Your task to perform on an android device: Search for "acer nitro" on target.com, select the first entry, add it to the cart, then select checkout. Image 0: 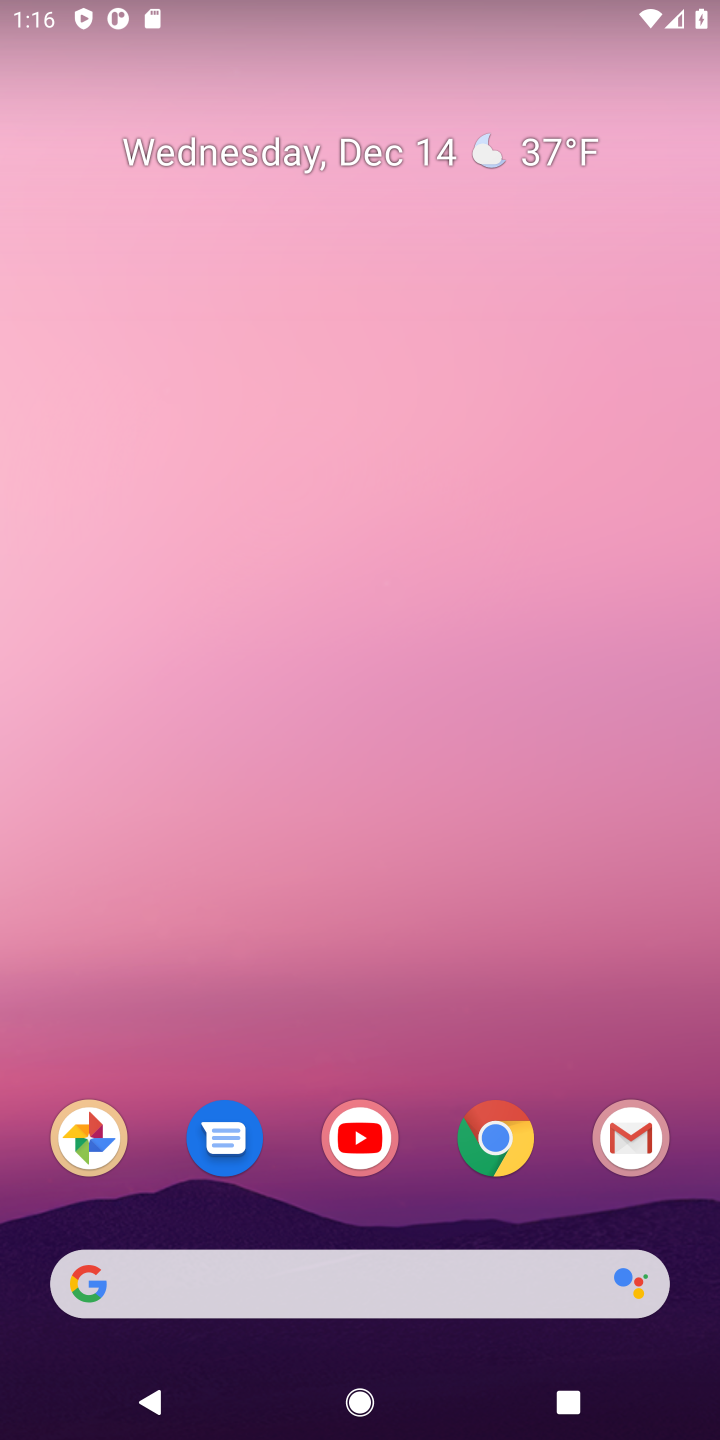
Step 0: click (488, 1133)
Your task to perform on an android device: Search for "acer nitro" on target.com, select the first entry, add it to the cart, then select checkout. Image 1: 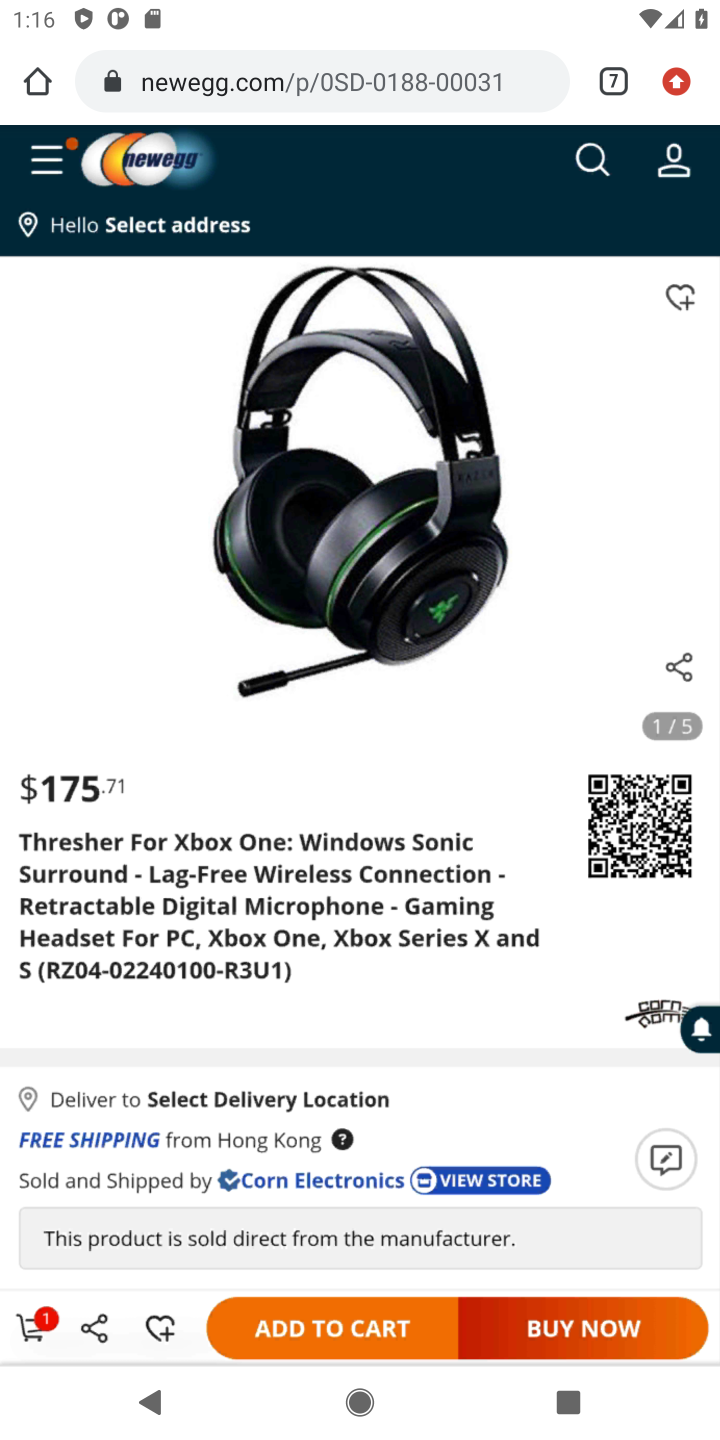
Step 1: click (617, 70)
Your task to perform on an android device: Search for "acer nitro" on target.com, select the first entry, add it to the cart, then select checkout. Image 2: 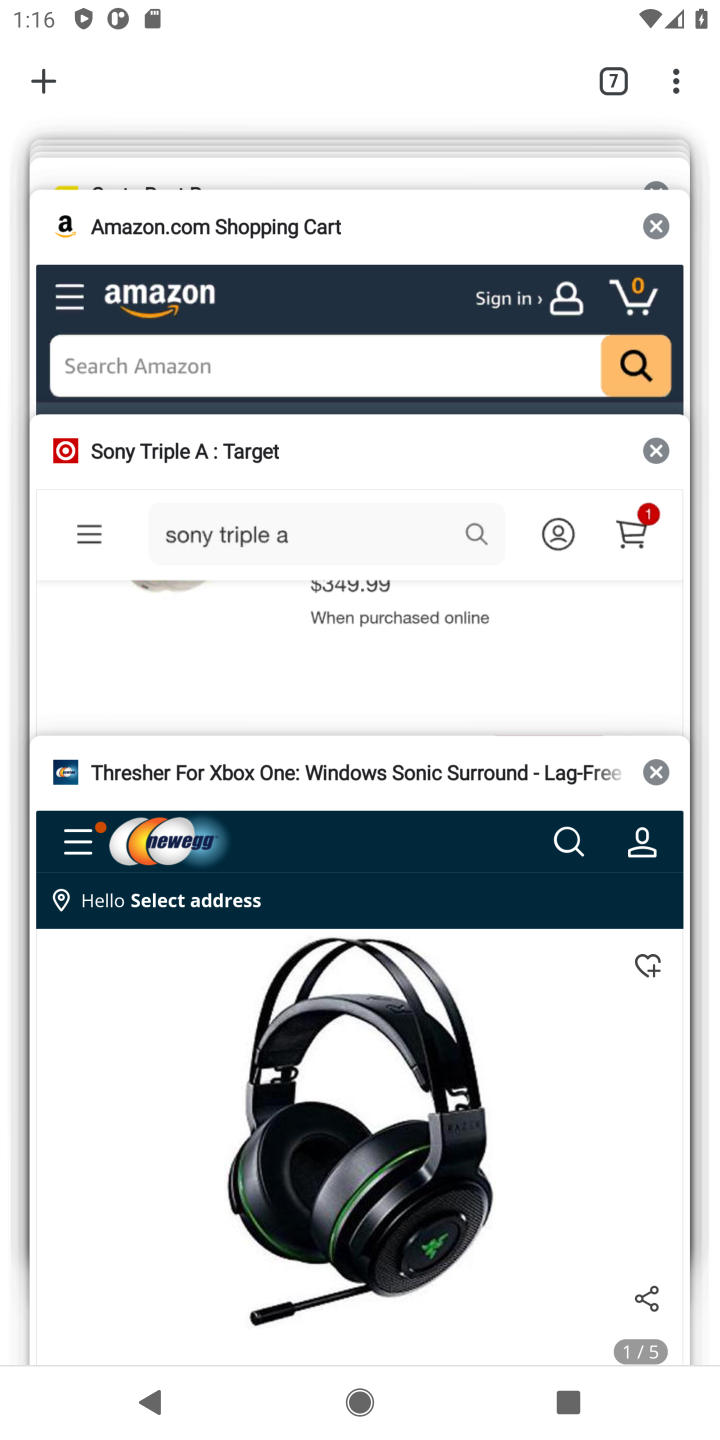
Step 2: drag from (345, 194) to (279, 711)
Your task to perform on an android device: Search for "acer nitro" on target.com, select the first entry, add it to the cart, then select checkout. Image 3: 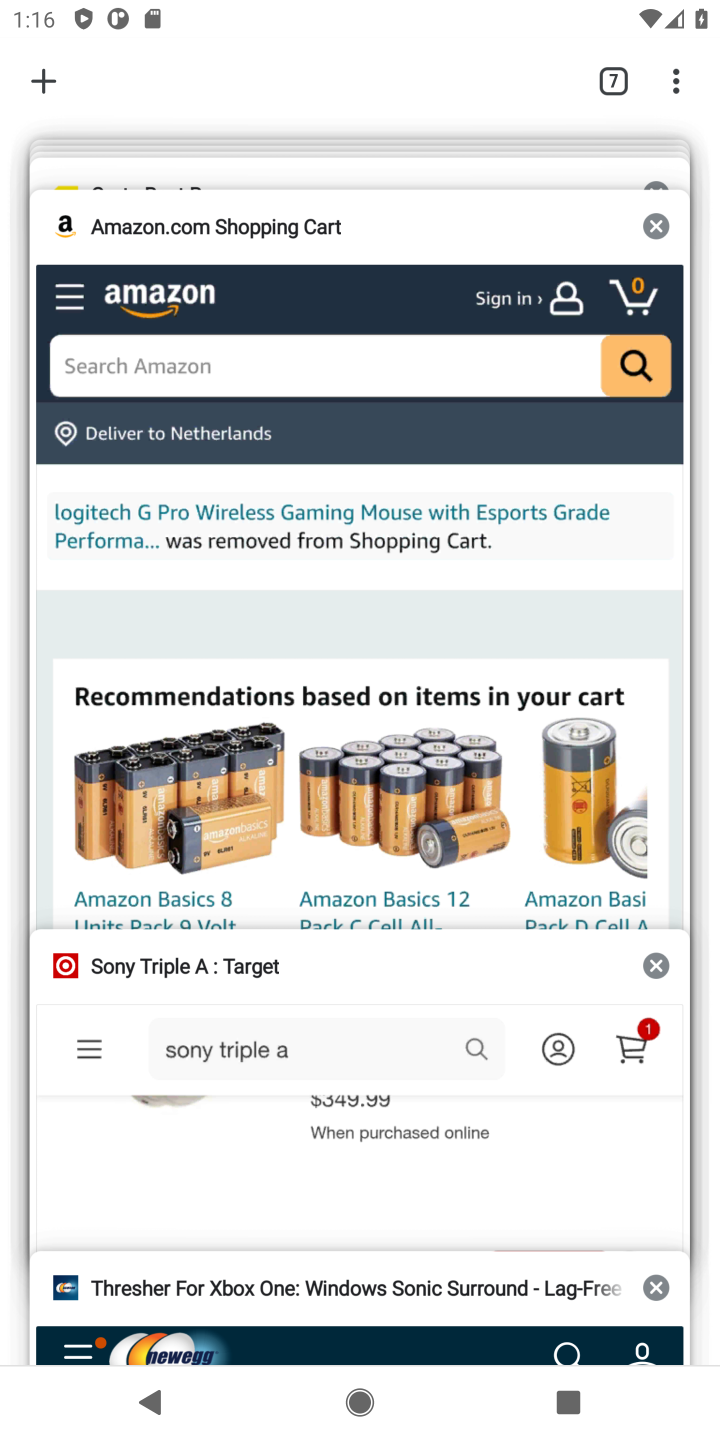
Step 3: click (279, 1011)
Your task to perform on an android device: Search for "acer nitro" on target.com, select the first entry, add it to the cart, then select checkout. Image 4: 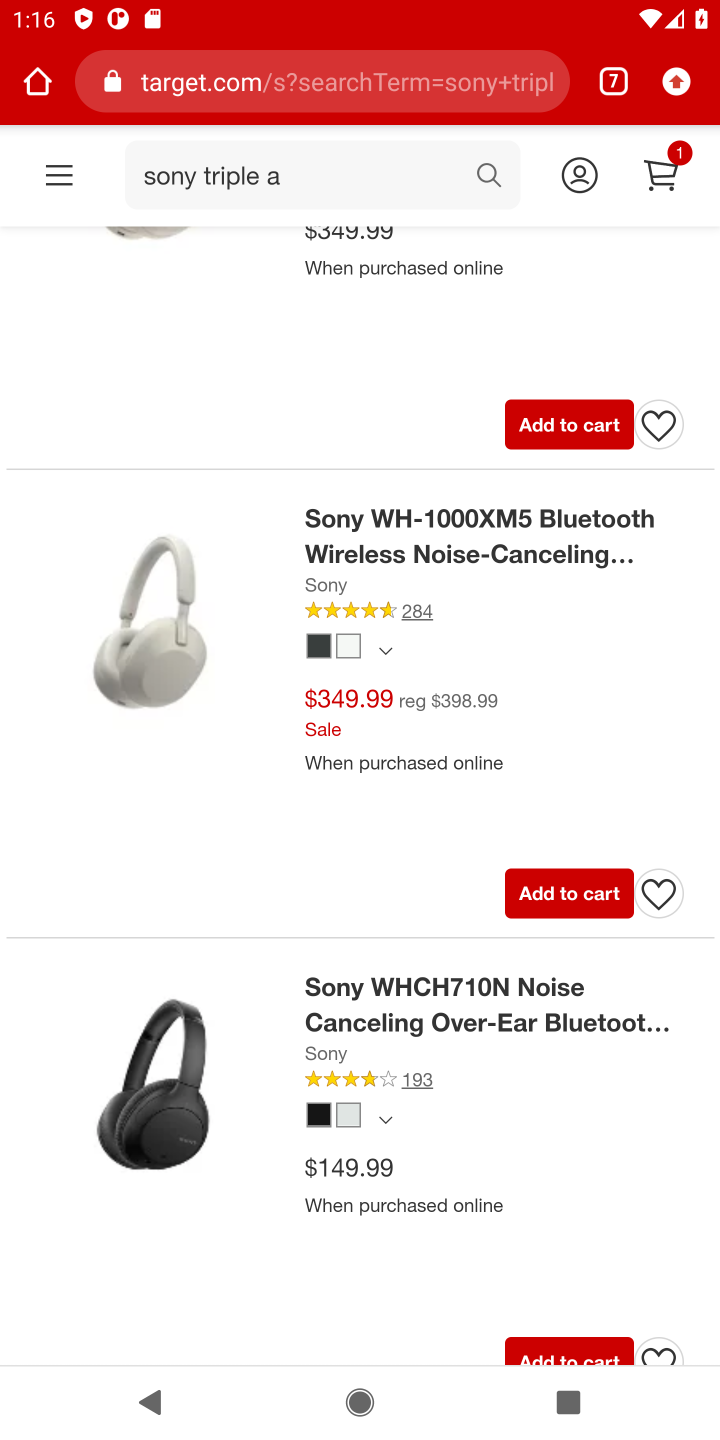
Step 4: click (351, 182)
Your task to perform on an android device: Search for "acer nitro" on target.com, select the first entry, add it to the cart, then select checkout. Image 5: 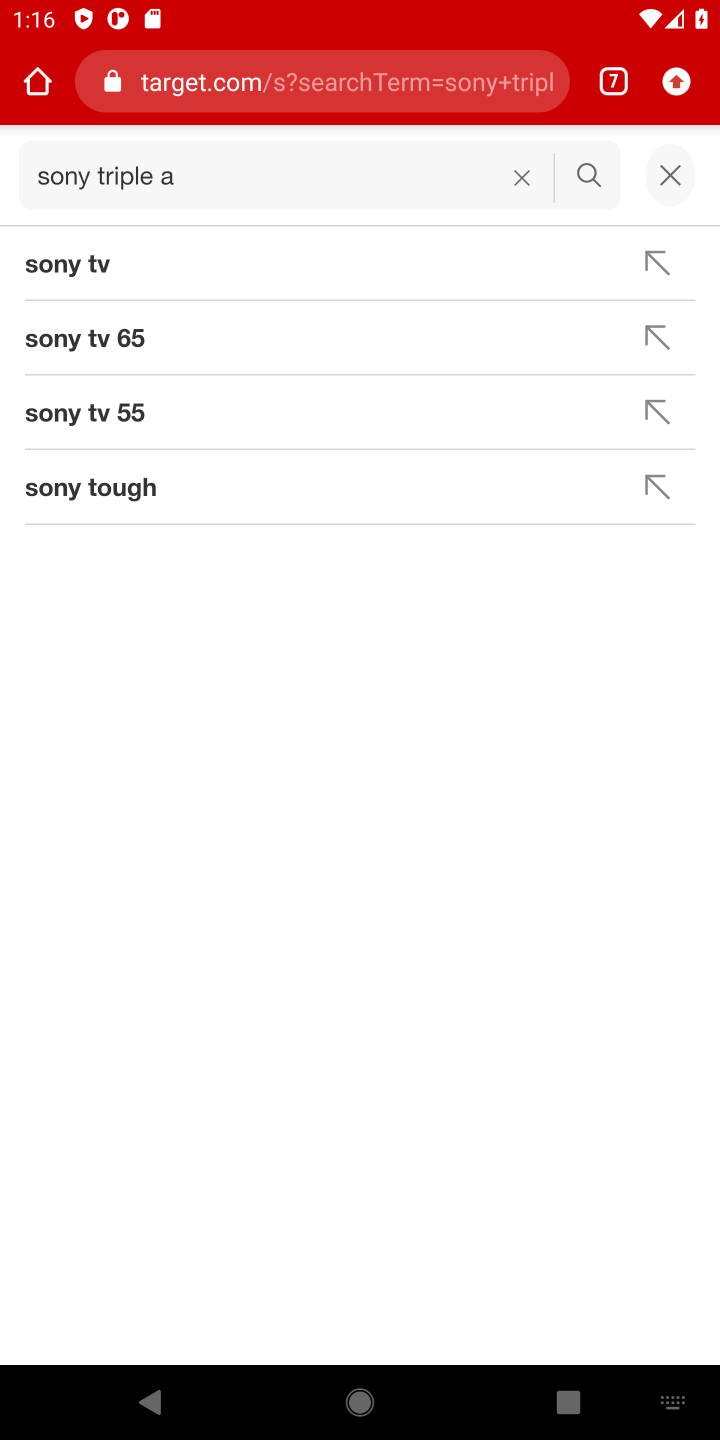
Step 5: click (520, 179)
Your task to perform on an android device: Search for "acer nitro" on target.com, select the first entry, add it to the cart, then select checkout. Image 6: 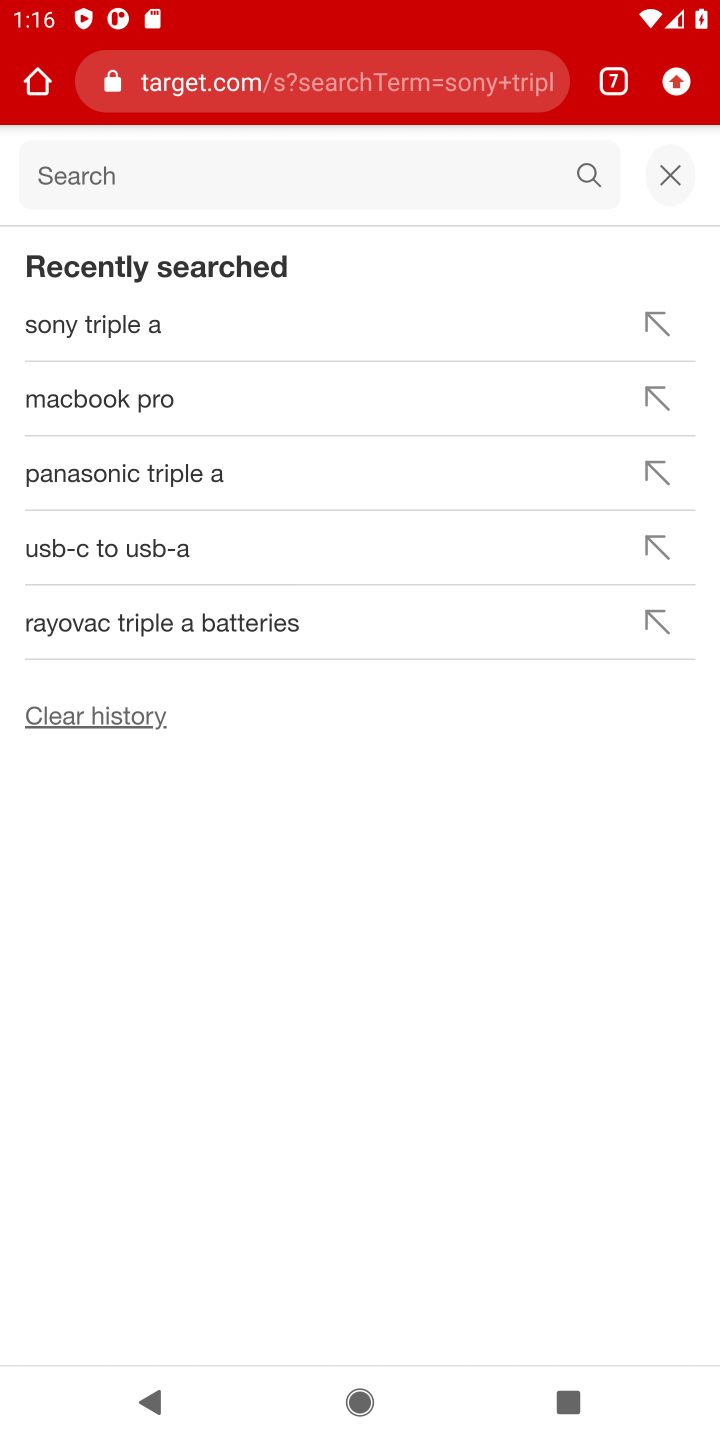
Step 6: type "acer nitro"
Your task to perform on an android device: Search for "acer nitro" on target.com, select the first entry, add it to the cart, then select checkout. Image 7: 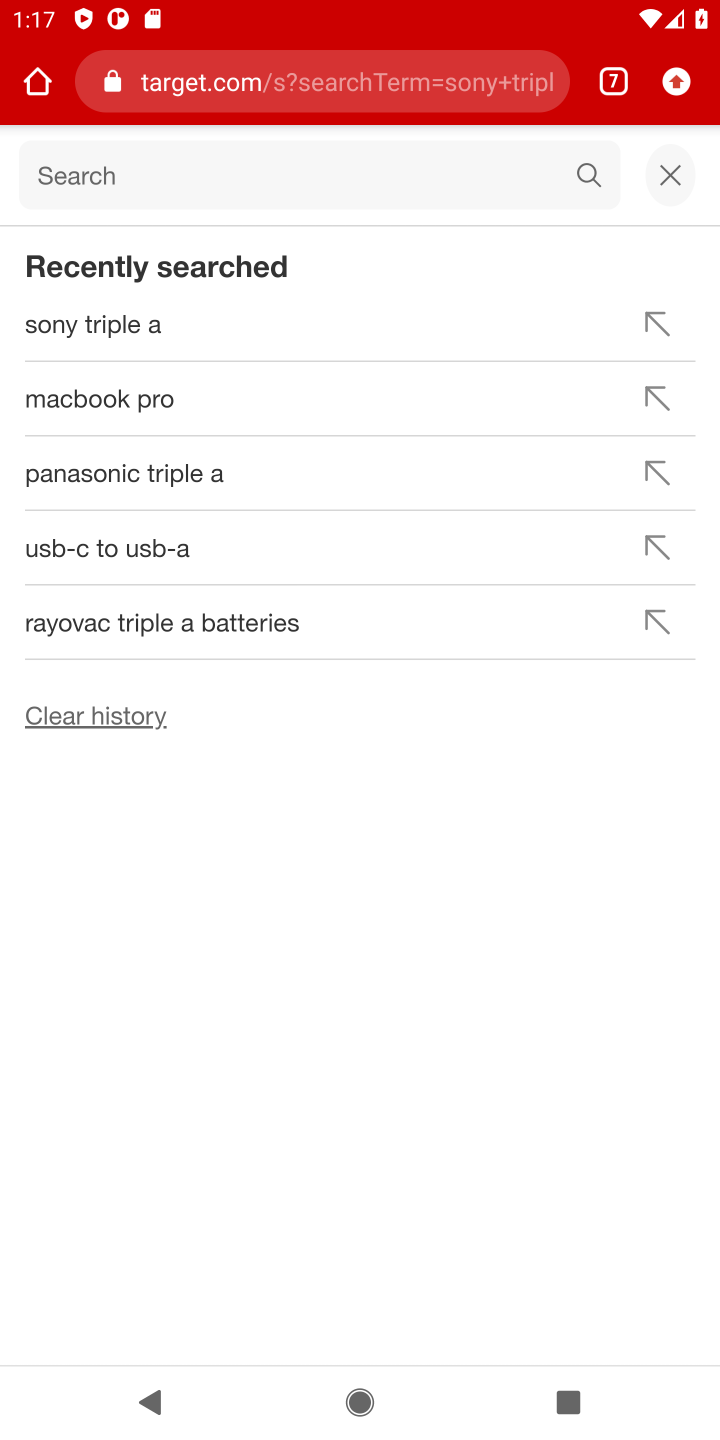
Step 7: type "acer nitro"
Your task to perform on an android device: Search for "acer nitro" on target.com, select the first entry, add it to the cart, then select checkout. Image 8: 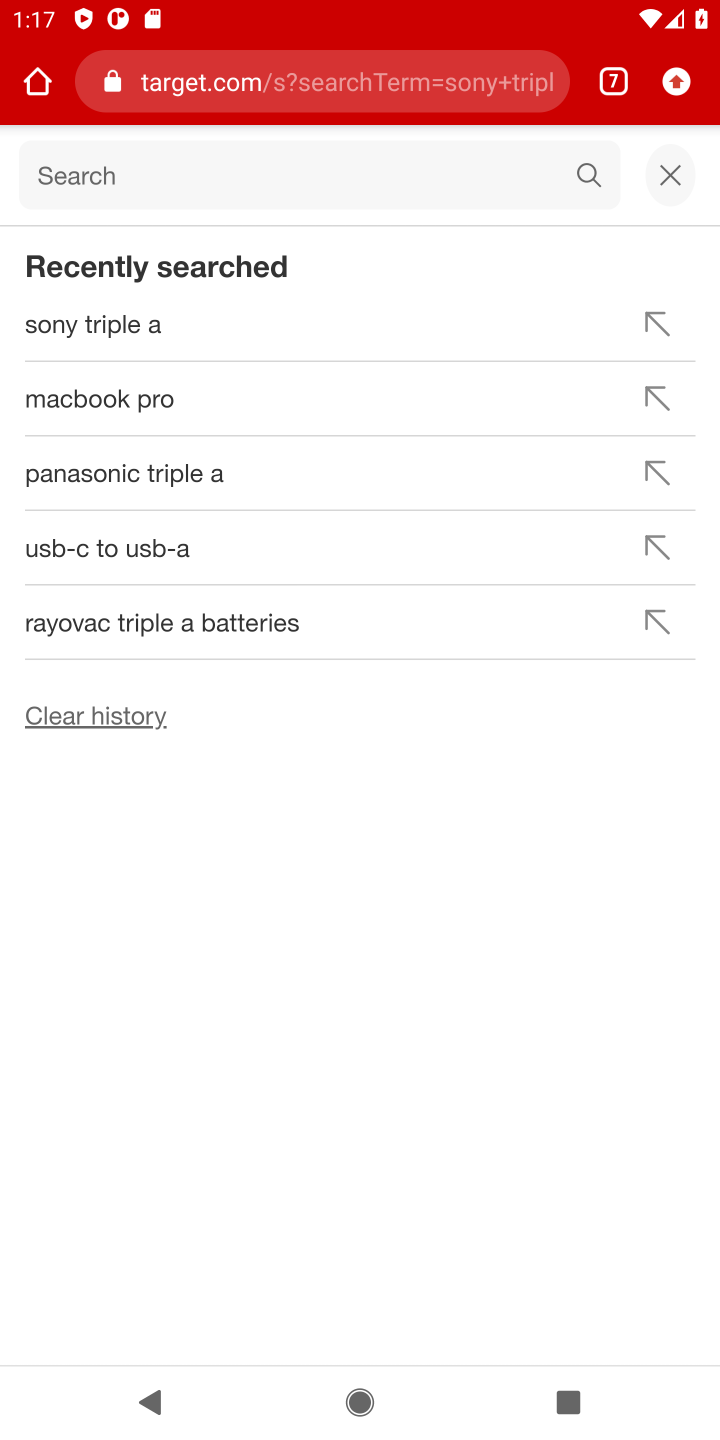
Step 8: click (87, 171)
Your task to perform on an android device: Search for "acer nitro" on target.com, select the first entry, add it to the cart, then select checkout. Image 9: 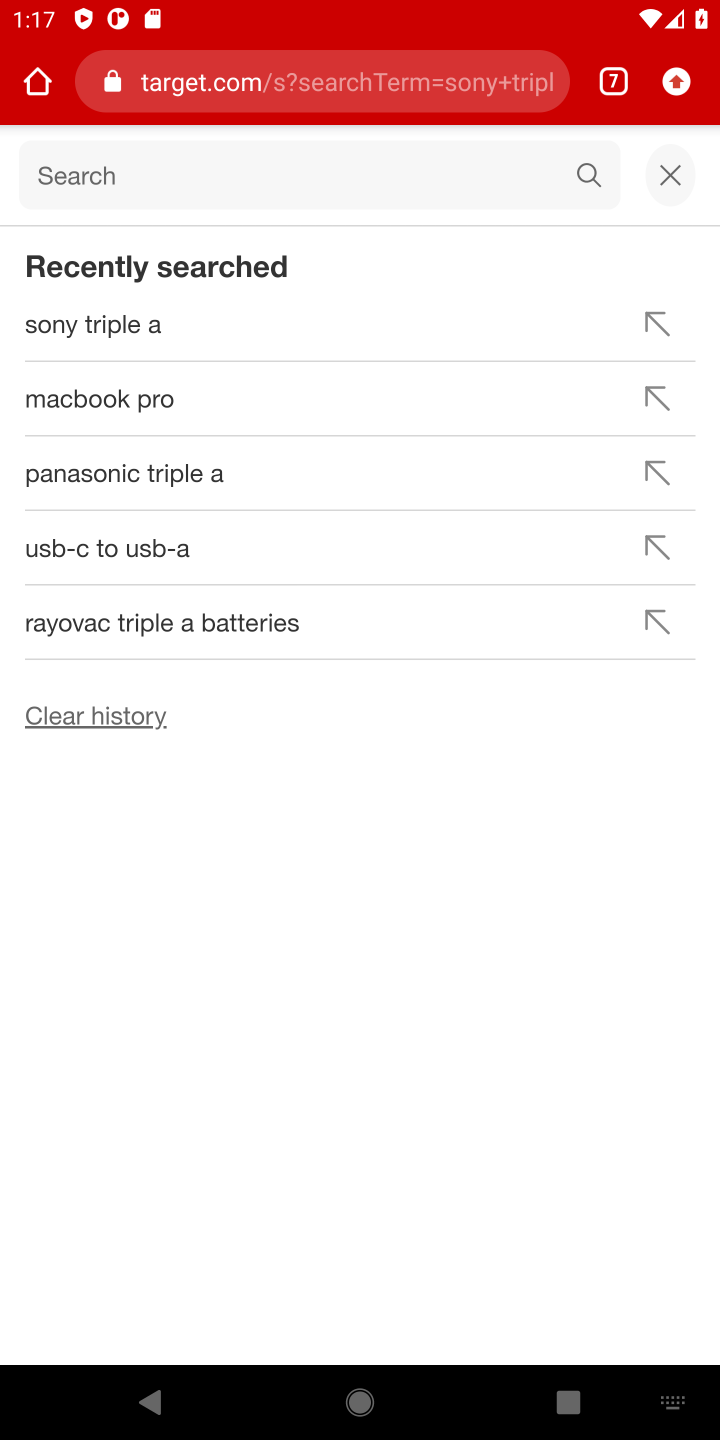
Step 9: type "acer nitro"
Your task to perform on an android device: Search for "acer nitro" on target.com, select the first entry, add it to the cart, then select checkout. Image 10: 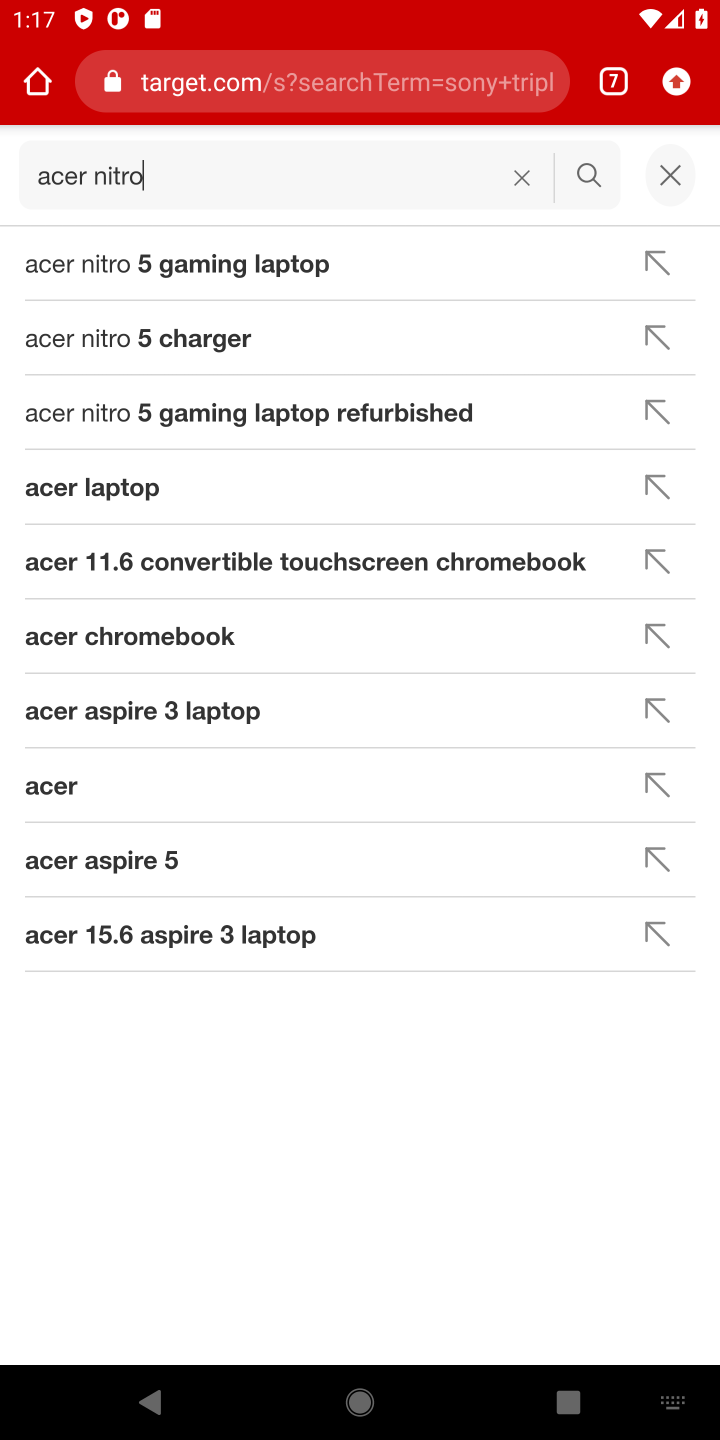
Step 10: click (573, 173)
Your task to perform on an android device: Search for "acer nitro" on target.com, select the first entry, add it to the cart, then select checkout. Image 11: 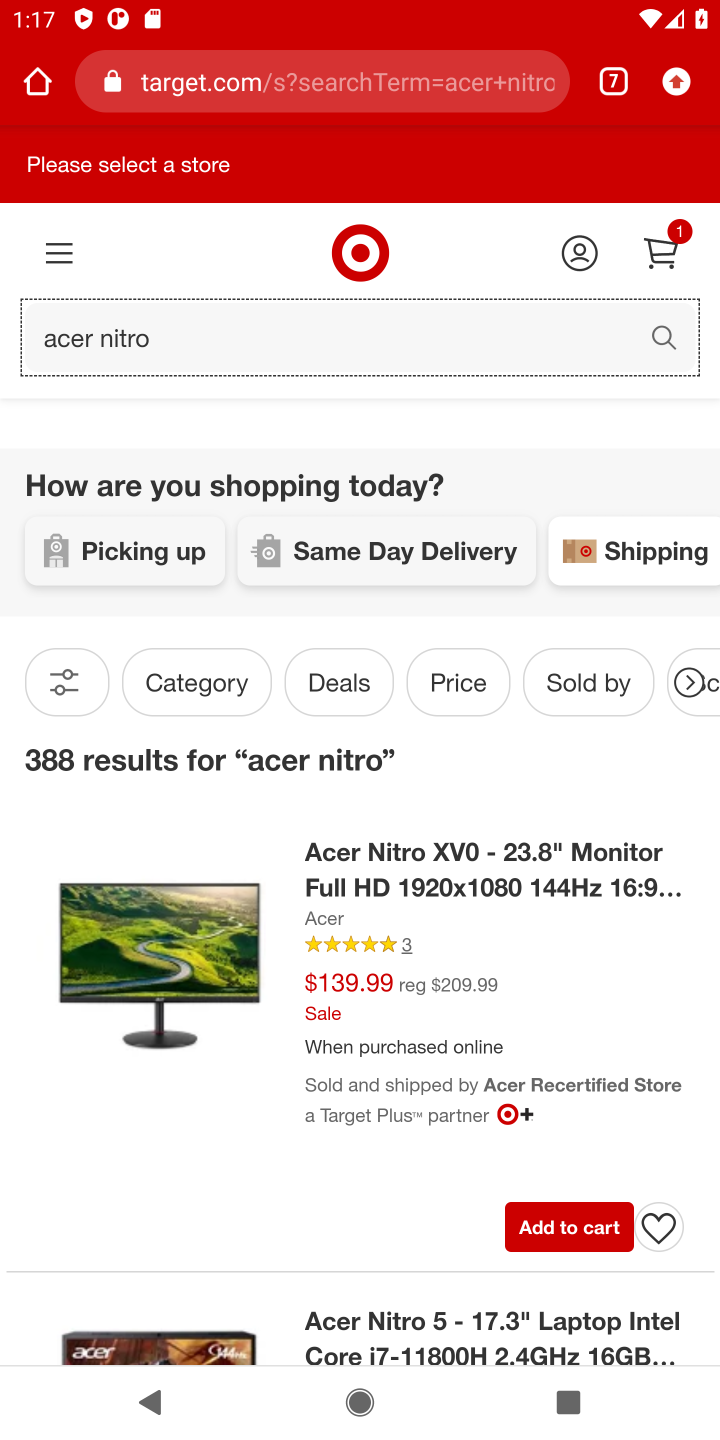
Step 11: click (542, 1296)
Your task to perform on an android device: Search for "acer nitro" on target.com, select the first entry, add it to the cart, then select checkout. Image 12: 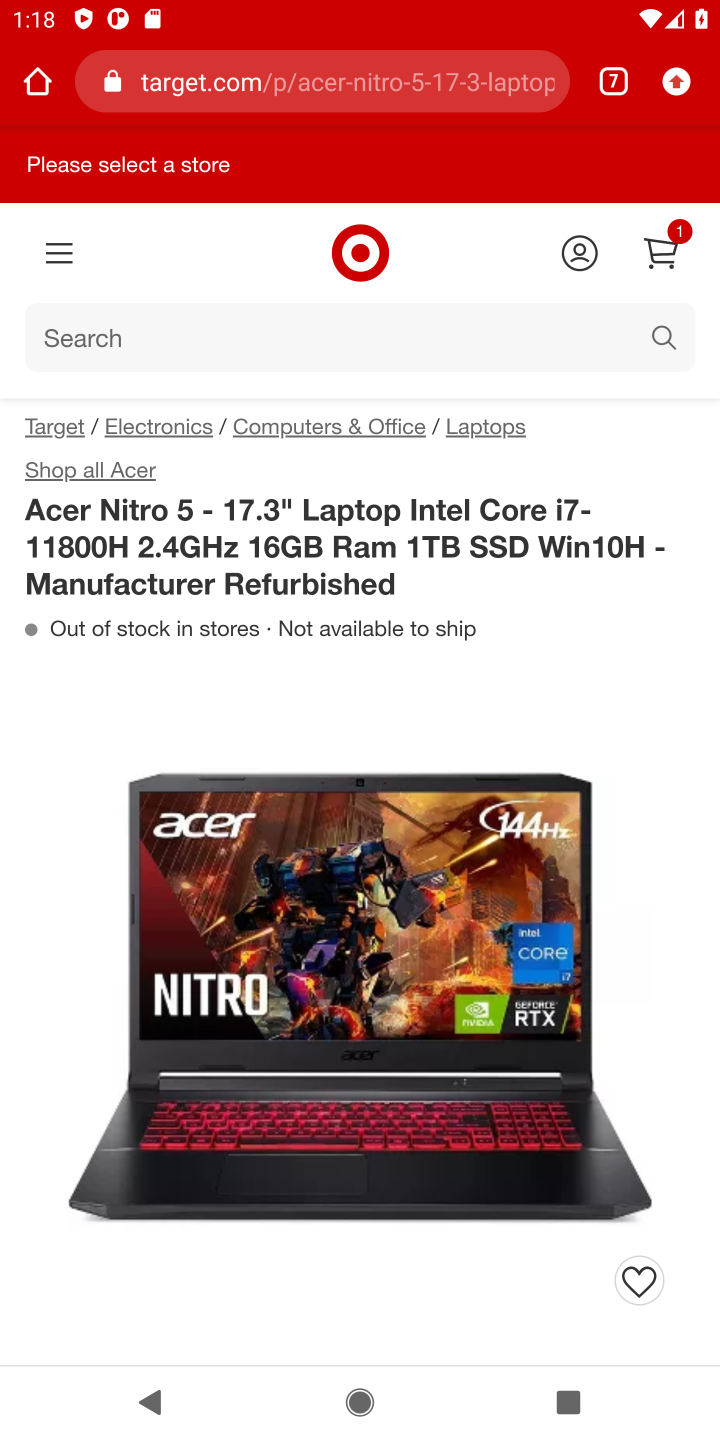
Step 12: drag from (503, 1264) to (559, 692)
Your task to perform on an android device: Search for "acer nitro" on target.com, select the first entry, add it to the cart, then select checkout. Image 13: 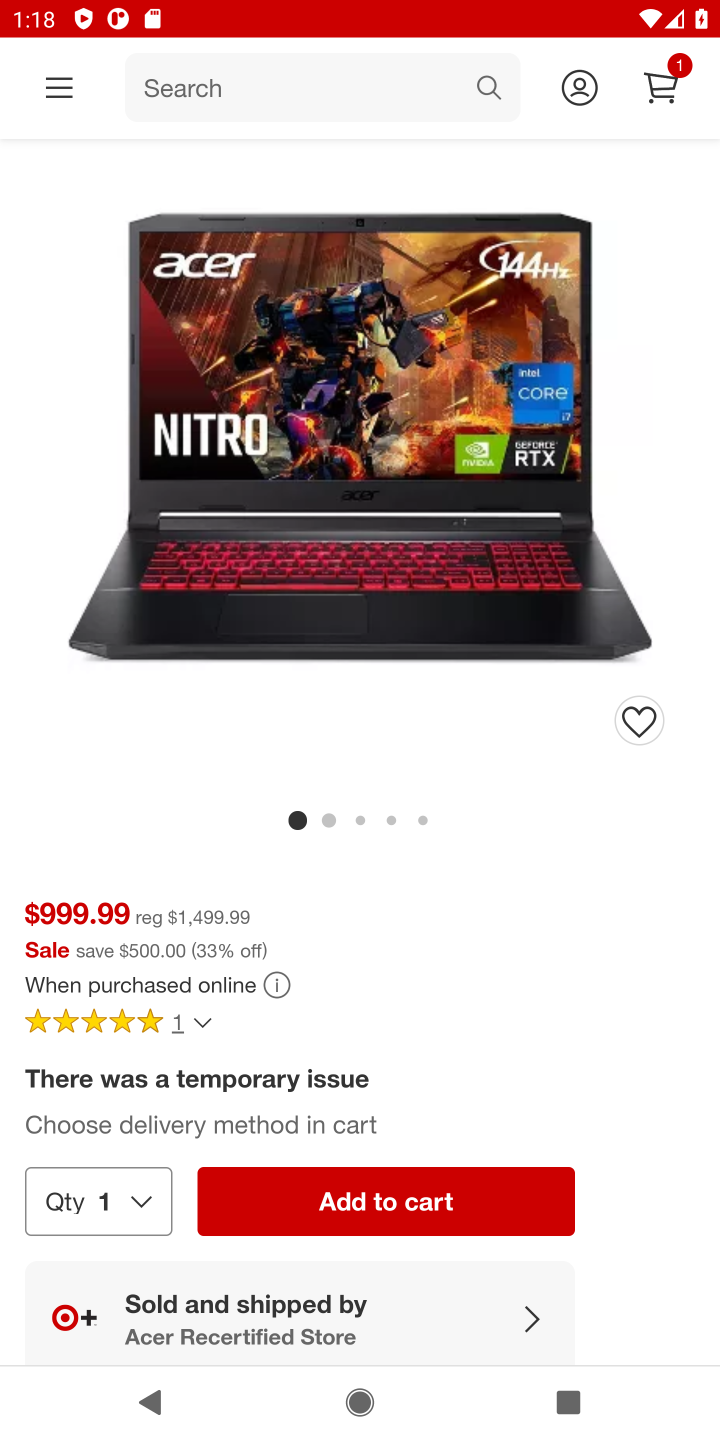
Step 13: click (395, 1202)
Your task to perform on an android device: Search for "acer nitro" on target.com, select the first entry, add it to the cart, then select checkout. Image 14: 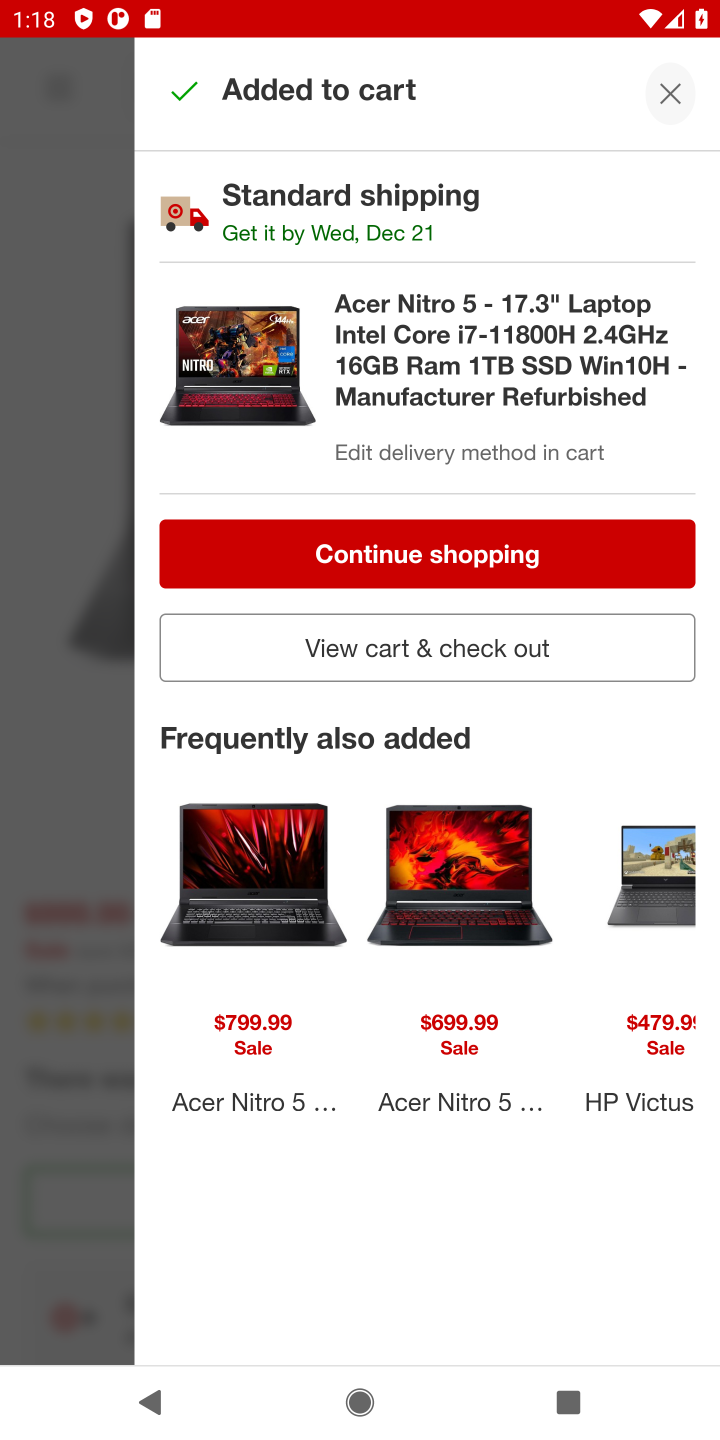
Step 14: task complete